Your task to perform on an android device: Is it going to rain tomorrow? Image 0: 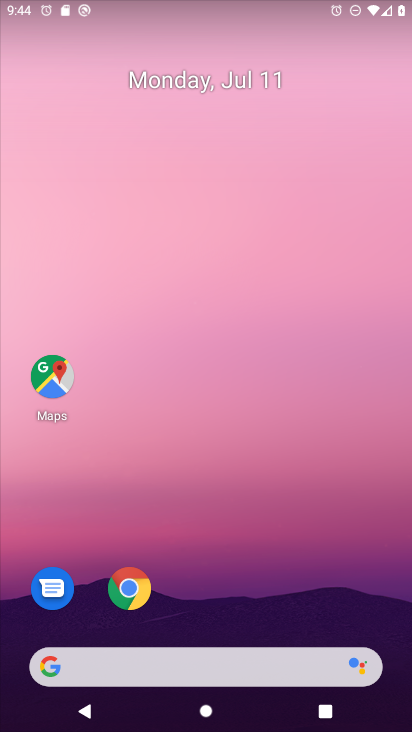
Step 0: click (167, 664)
Your task to perform on an android device: Is it going to rain tomorrow? Image 1: 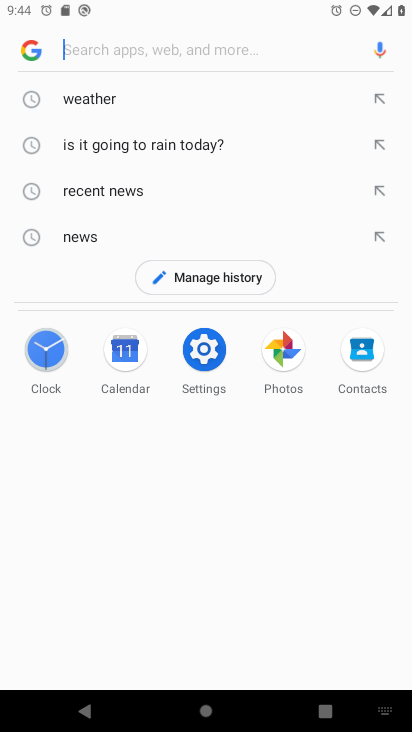
Step 1: type "Is it going to rain tomorrow"
Your task to perform on an android device: Is it going to rain tomorrow? Image 2: 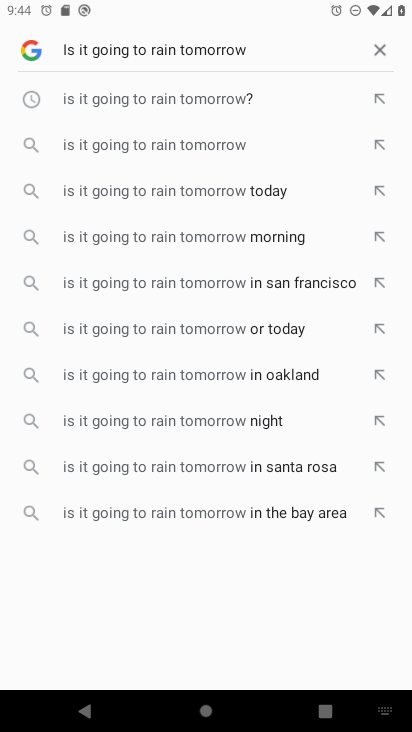
Step 2: click (154, 99)
Your task to perform on an android device: Is it going to rain tomorrow? Image 3: 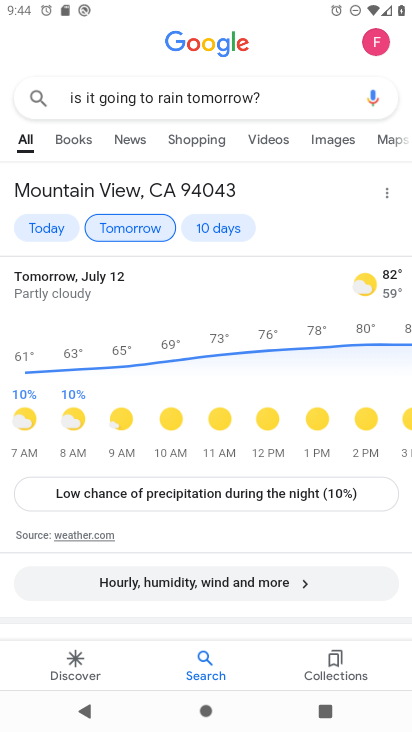
Step 3: task complete